Your task to perform on an android device: show emergency info Image 0: 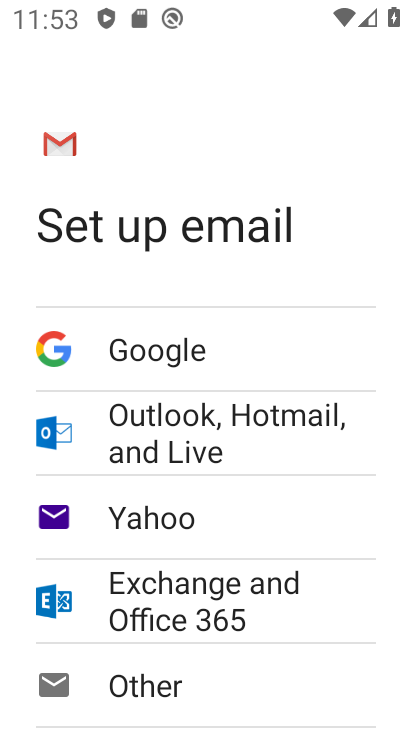
Step 0: press home button
Your task to perform on an android device: show emergency info Image 1: 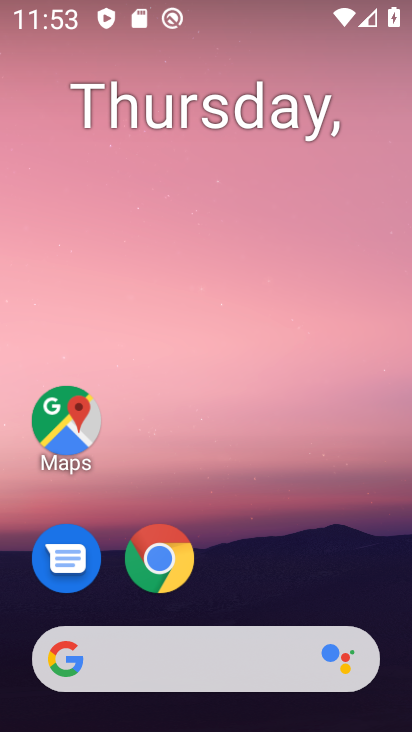
Step 1: drag from (387, 572) to (377, 98)
Your task to perform on an android device: show emergency info Image 2: 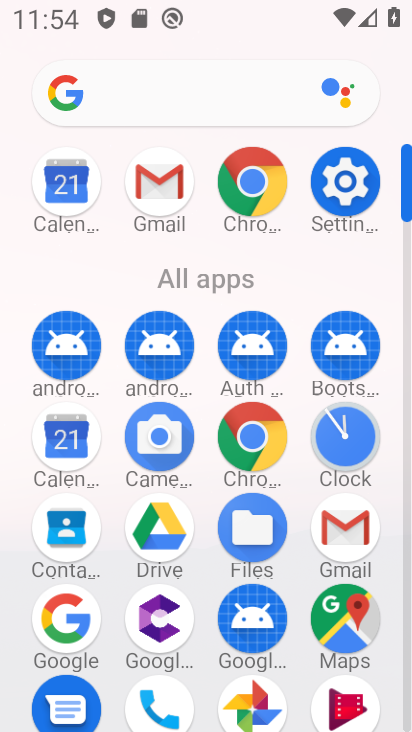
Step 2: click (357, 183)
Your task to perform on an android device: show emergency info Image 3: 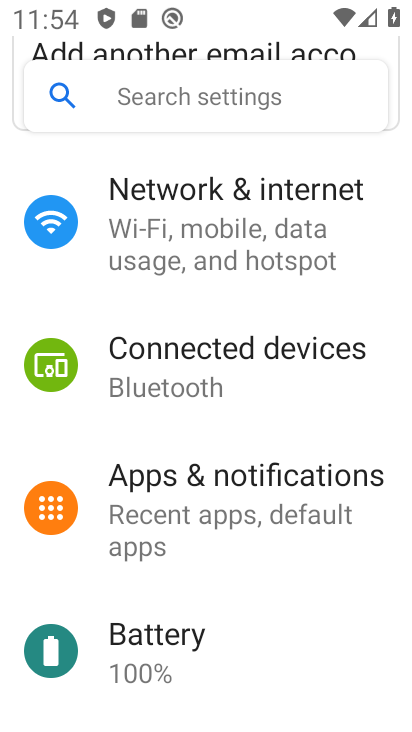
Step 3: drag from (360, 249) to (353, 326)
Your task to perform on an android device: show emergency info Image 4: 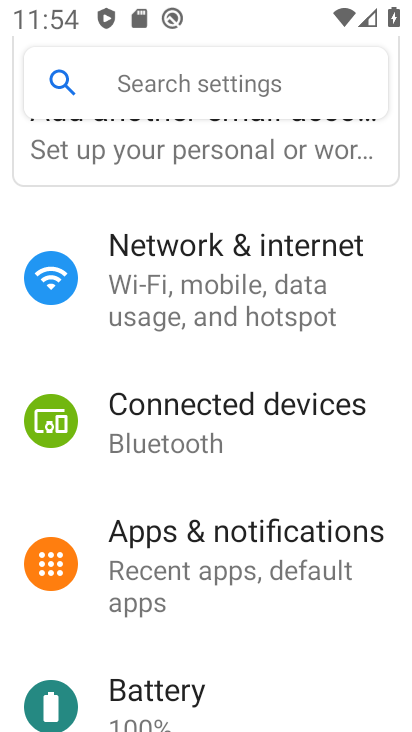
Step 4: drag from (366, 449) to (362, 350)
Your task to perform on an android device: show emergency info Image 5: 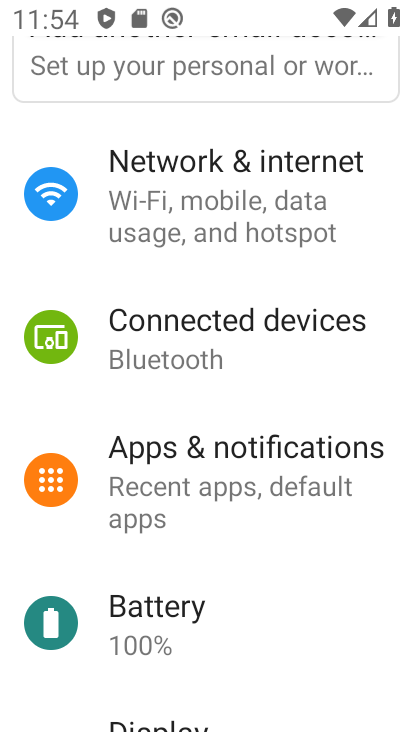
Step 5: drag from (371, 462) to (368, 348)
Your task to perform on an android device: show emergency info Image 6: 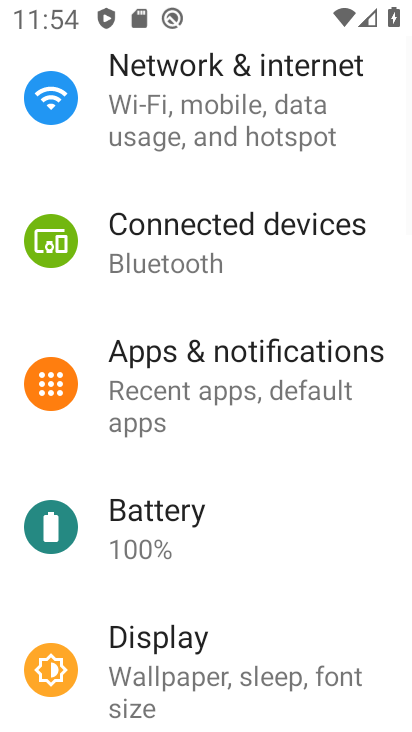
Step 6: drag from (361, 494) to (361, 394)
Your task to perform on an android device: show emergency info Image 7: 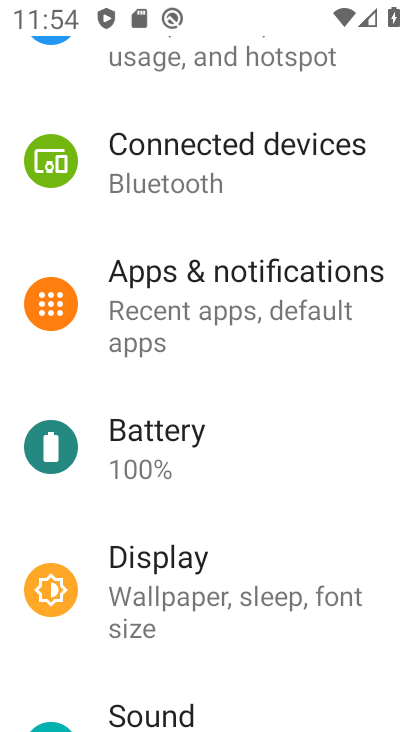
Step 7: drag from (352, 496) to (352, 377)
Your task to perform on an android device: show emergency info Image 8: 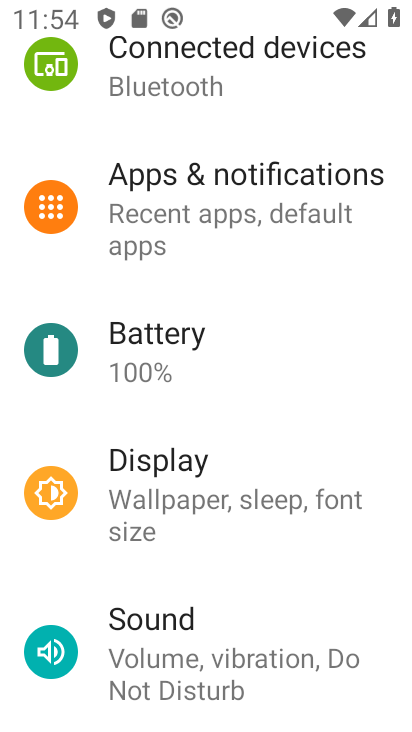
Step 8: drag from (361, 535) to (364, 397)
Your task to perform on an android device: show emergency info Image 9: 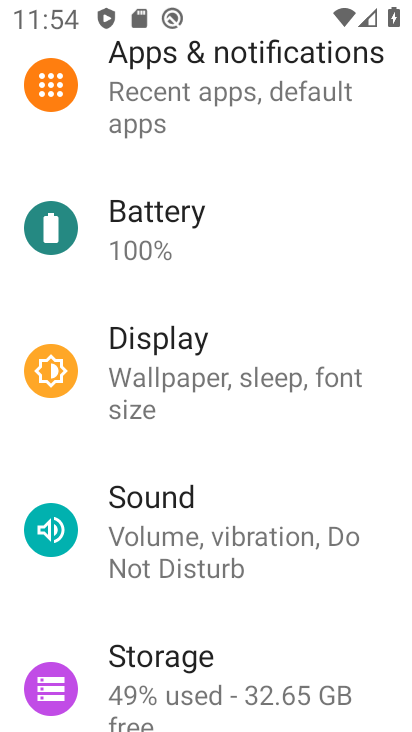
Step 9: drag from (364, 461) to (369, 354)
Your task to perform on an android device: show emergency info Image 10: 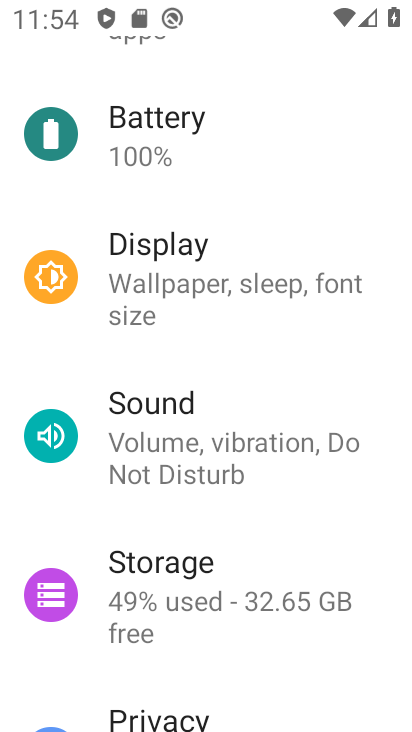
Step 10: drag from (352, 486) to (352, 379)
Your task to perform on an android device: show emergency info Image 11: 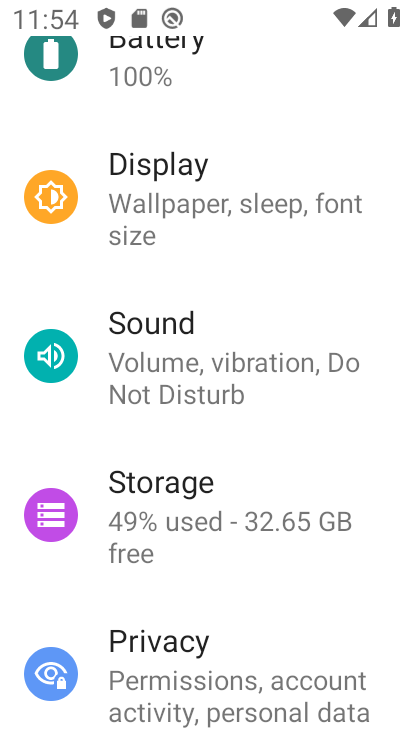
Step 11: drag from (350, 564) to (349, 401)
Your task to perform on an android device: show emergency info Image 12: 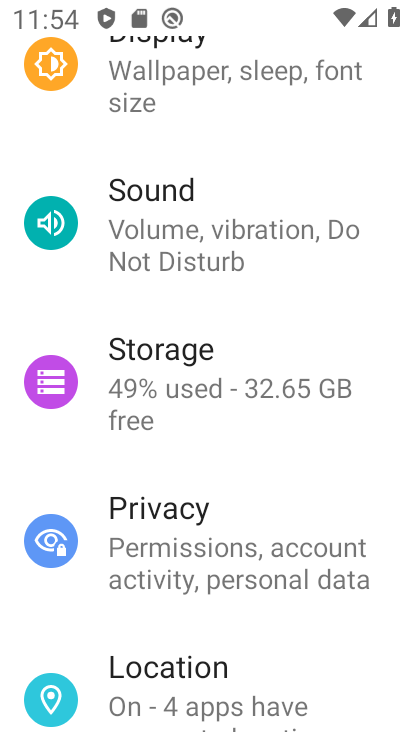
Step 12: drag from (341, 554) to (337, 371)
Your task to perform on an android device: show emergency info Image 13: 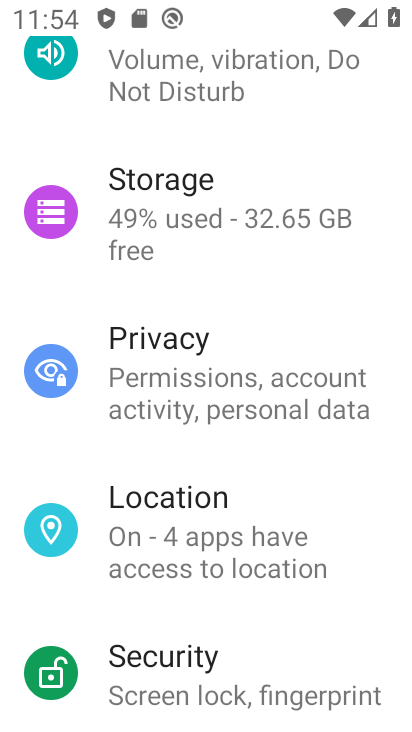
Step 13: drag from (352, 541) to (348, 404)
Your task to perform on an android device: show emergency info Image 14: 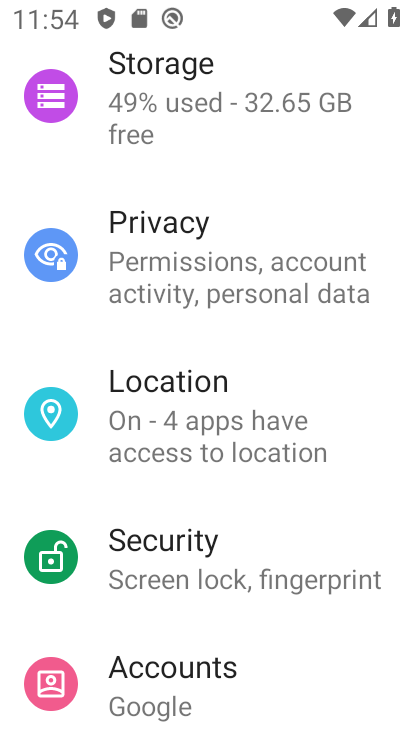
Step 14: drag from (335, 595) to (337, 442)
Your task to perform on an android device: show emergency info Image 15: 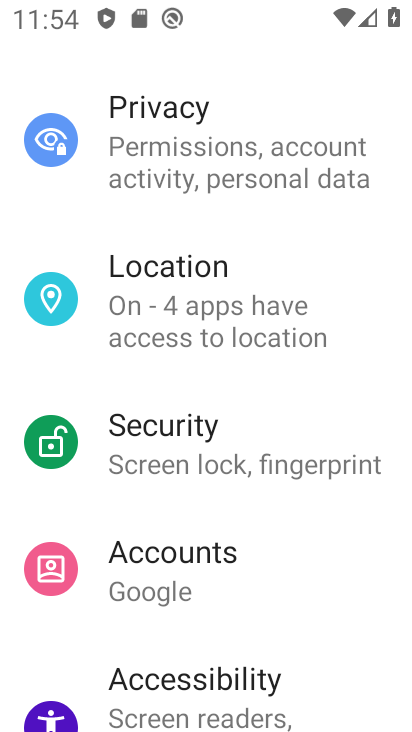
Step 15: drag from (346, 594) to (355, 448)
Your task to perform on an android device: show emergency info Image 16: 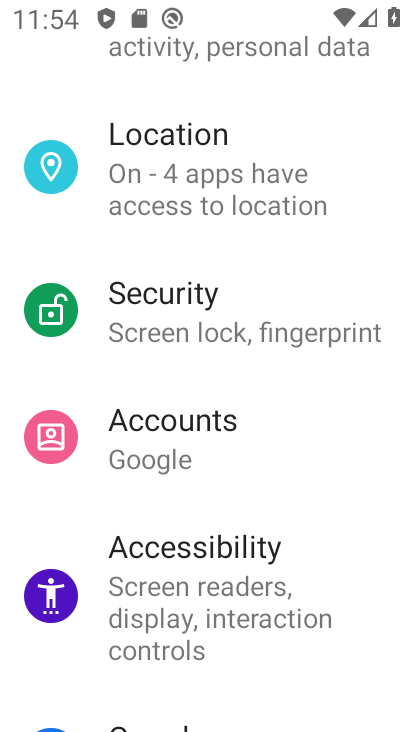
Step 16: drag from (352, 636) to (352, 489)
Your task to perform on an android device: show emergency info Image 17: 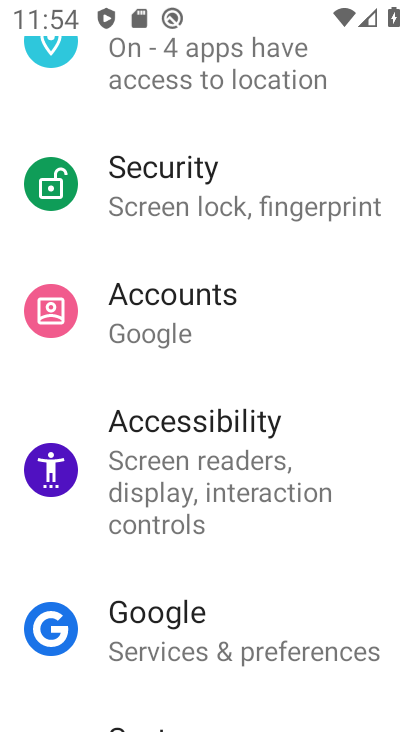
Step 17: drag from (350, 668) to (356, 516)
Your task to perform on an android device: show emergency info Image 18: 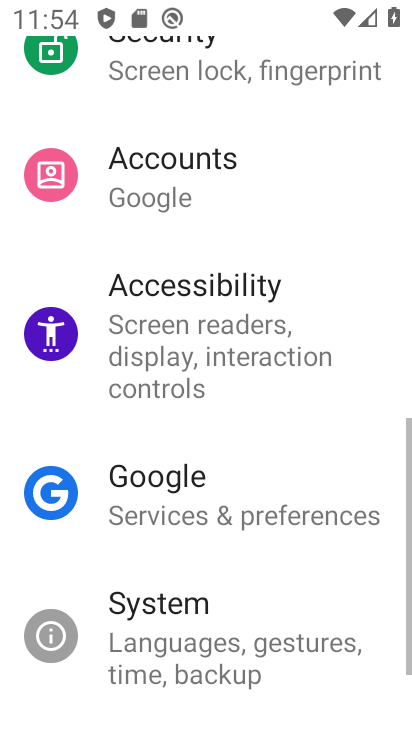
Step 18: drag from (361, 664) to (358, 526)
Your task to perform on an android device: show emergency info Image 19: 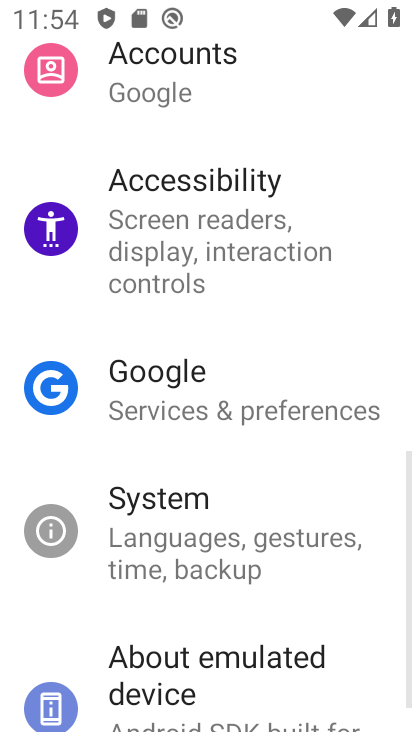
Step 19: click (349, 665)
Your task to perform on an android device: show emergency info Image 20: 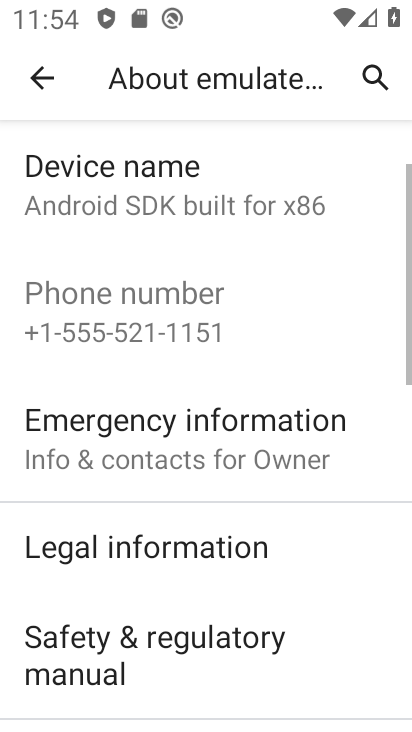
Step 20: click (235, 431)
Your task to perform on an android device: show emergency info Image 21: 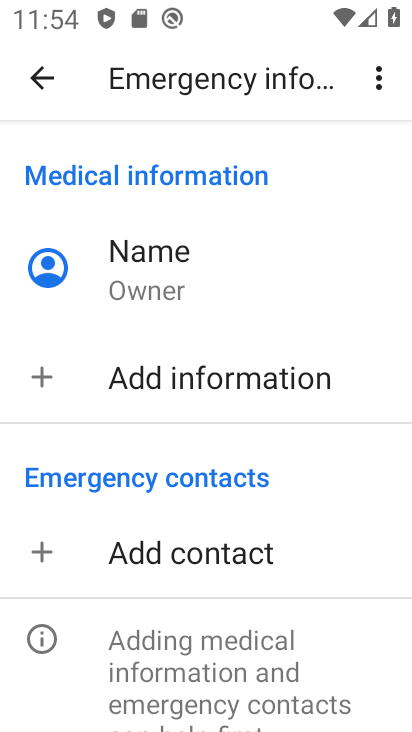
Step 21: task complete